Your task to perform on an android device: Is it going to rain tomorrow? Image 0: 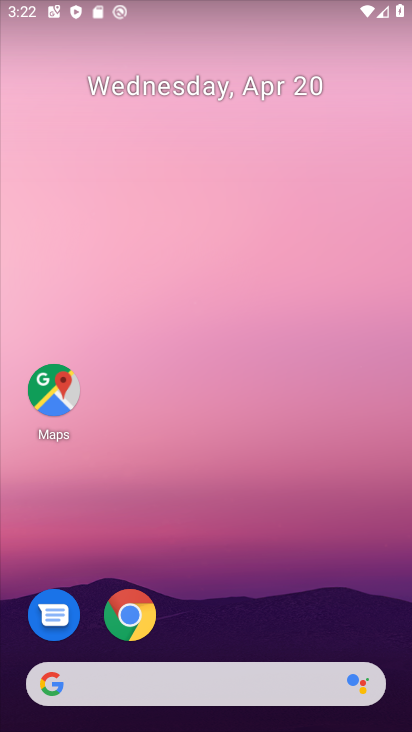
Step 0: drag from (191, 566) to (241, 147)
Your task to perform on an android device: Is it going to rain tomorrow? Image 1: 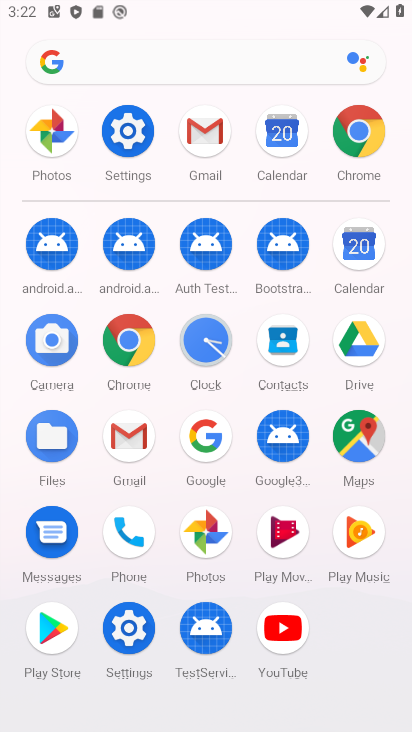
Step 1: click (128, 337)
Your task to perform on an android device: Is it going to rain tomorrow? Image 2: 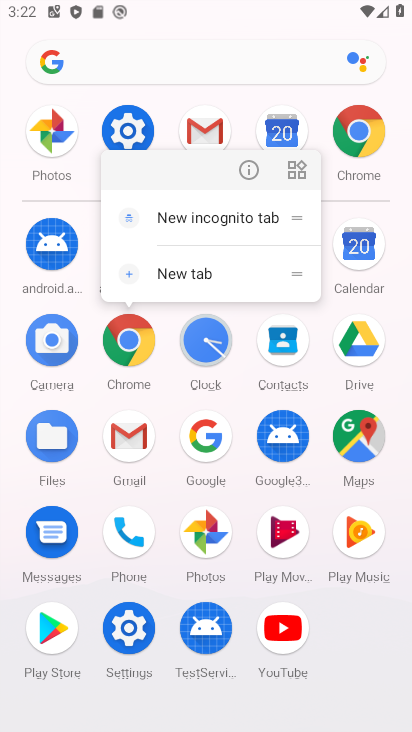
Step 2: click (249, 171)
Your task to perform on an android device: Is it going to rain tomorrow? Image 3: 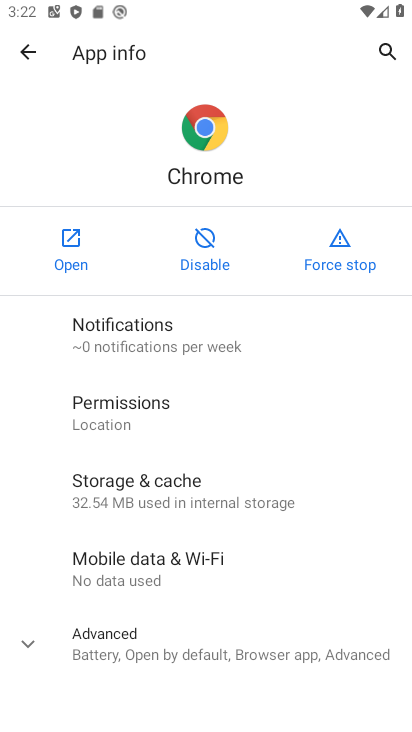
Step 3: click (81, 254)
Your task to perform on an android device: Is it going to rain tomorrow? Image 4: 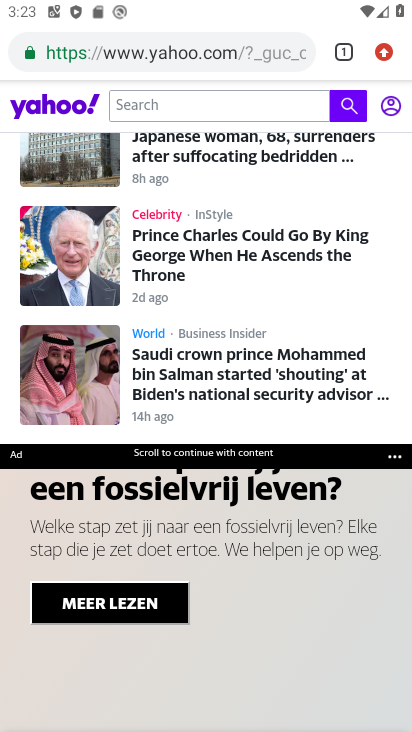
Step 4: click (200, 46)
Your task to perform on an android device: Is it going to rain tomorrow? Image 5: 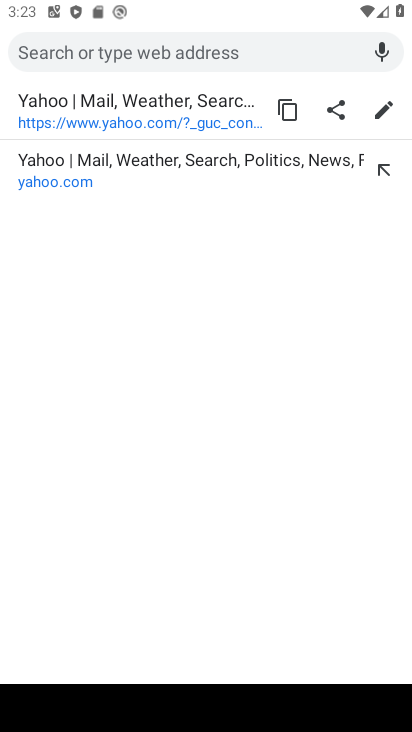
Step 5: type "rain tomorrow"
Your task to perform on an android device: Is it going to rain tomorrow? Image 6: 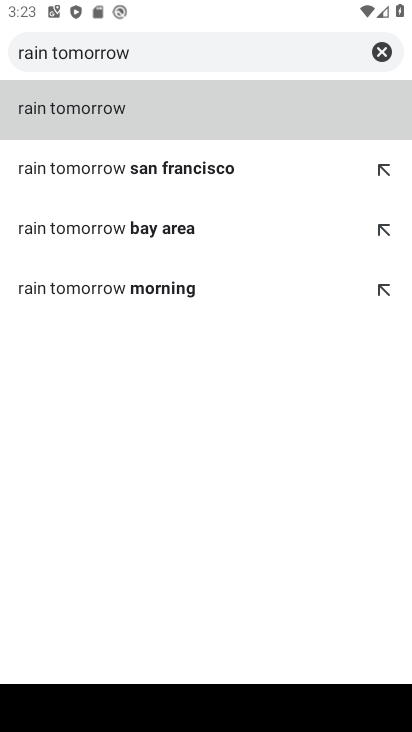
Step 6: click (99, 107)
Your task to perform on an android device: Is it going to rain tomorrow? Image 7: 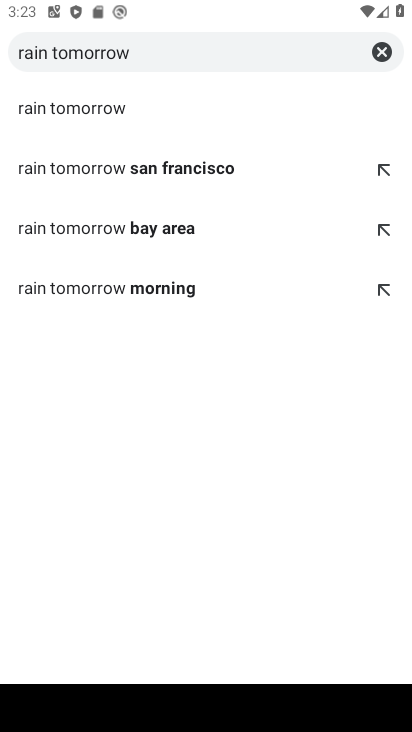
Step 7: click (115, 113)
Your task to perform on an android device: Is it going to rain tomorrow? Image 8: 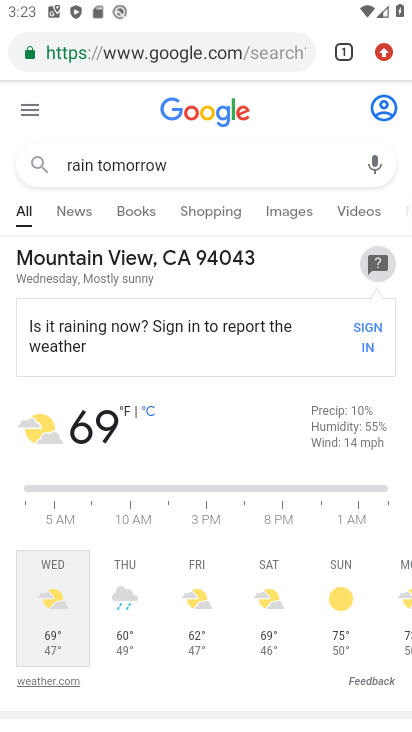
Step 8: task complete